Your task to perform on an android device: What's on my calendar tomorrow? Image 0: 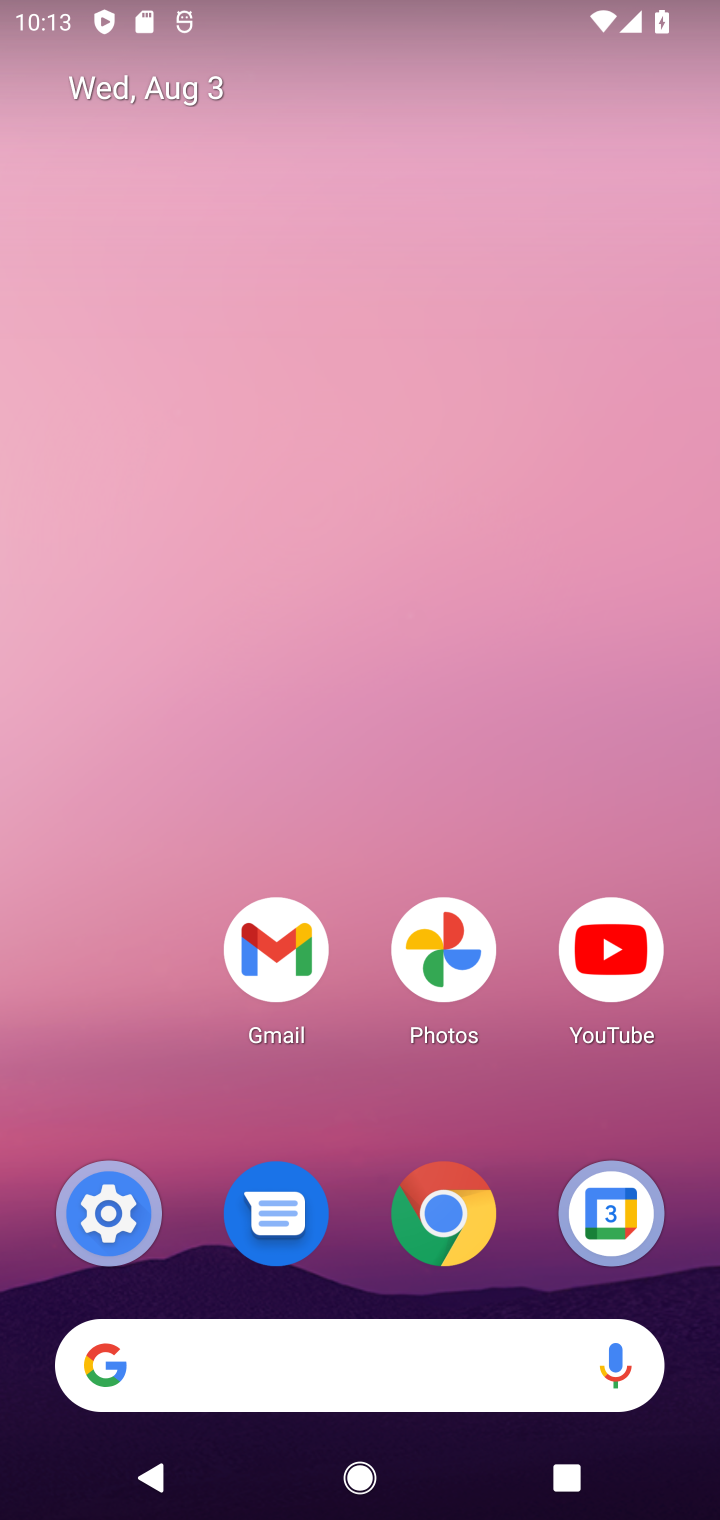
Step 0: drag from (496, 844) to (398, 36)
Your task to perform on an android device: What's on my calendar tomorrow? Image 1: 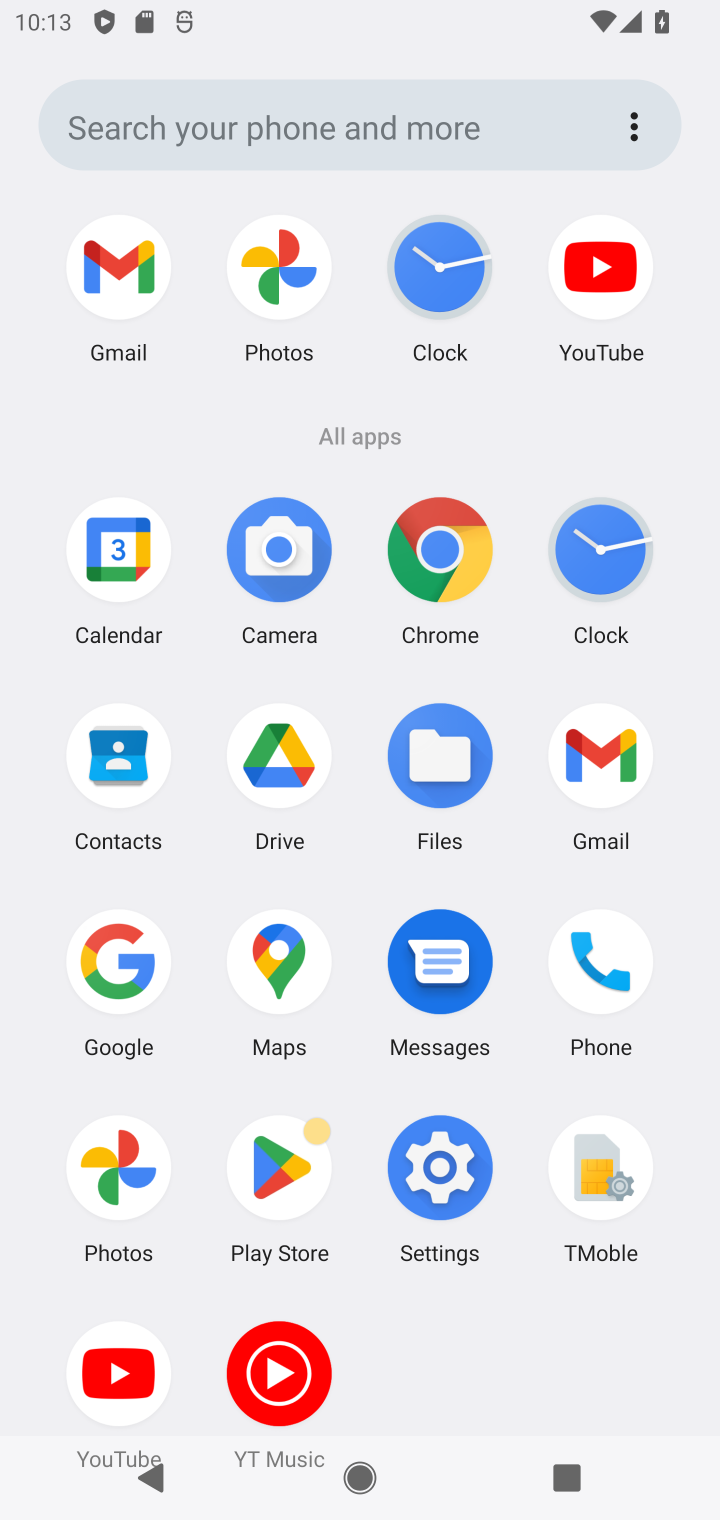
Step 1: click (90, 567)
Your task to perform on an android device: What's on my calendar tomorrow? Image 2: 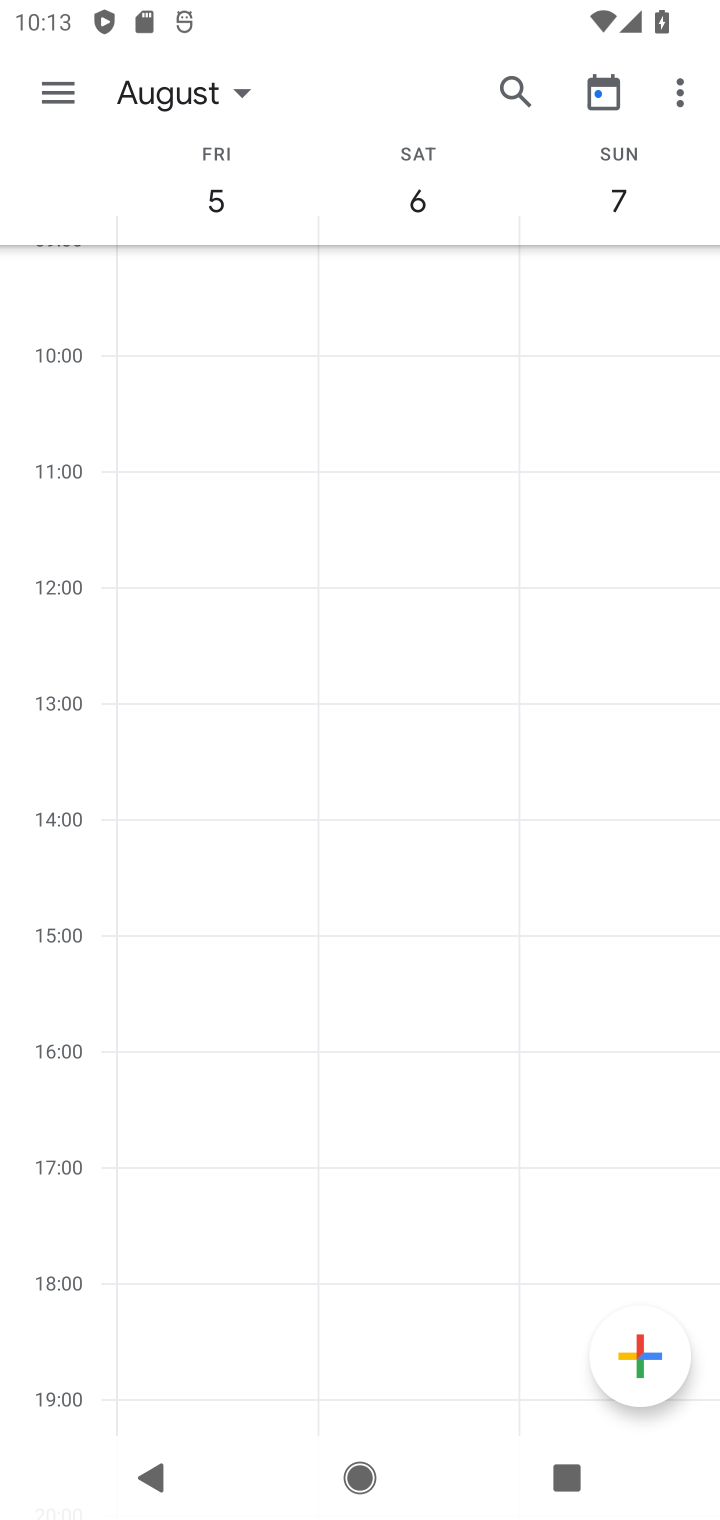
Step 2: click (62, 99)
Your task to perform on an android device: What's on my calendar tomorrow? Image 3: 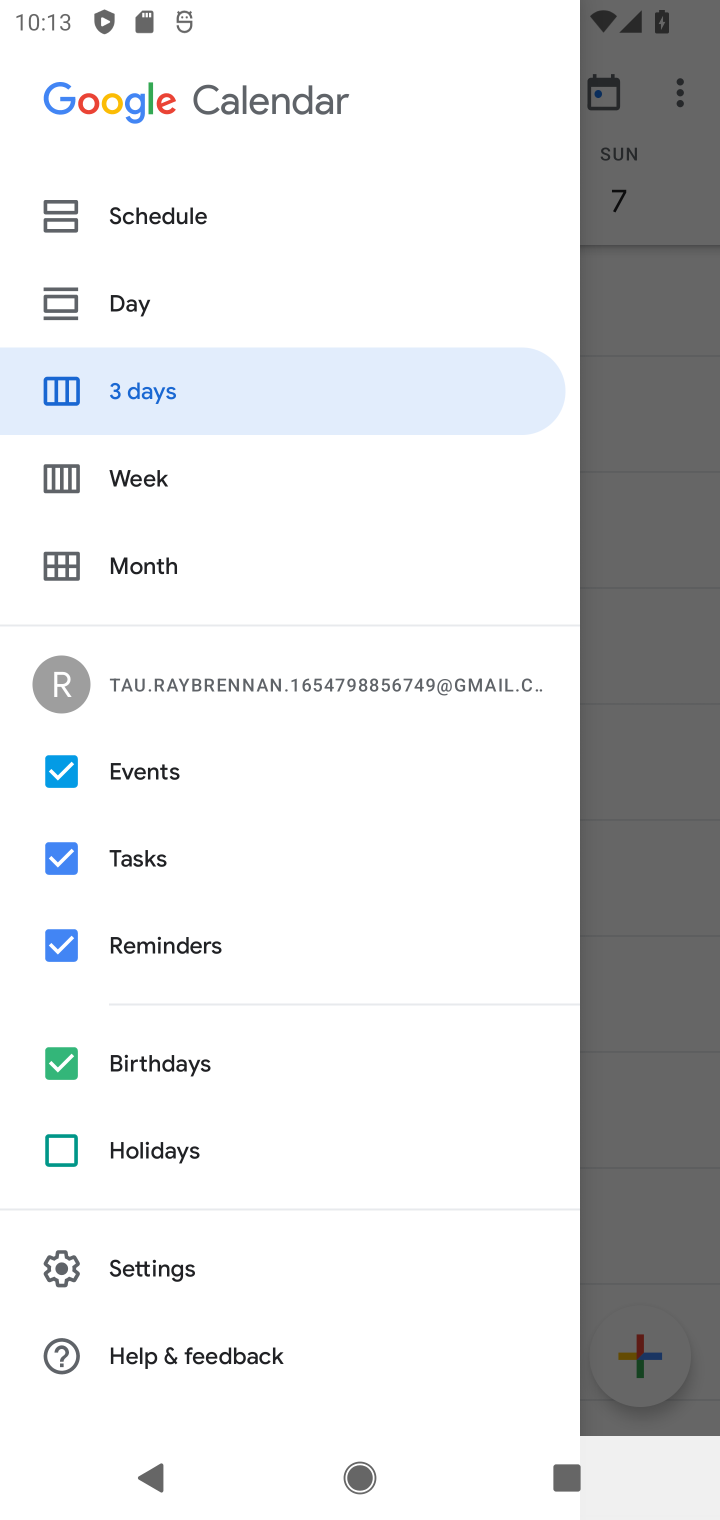
Step 3: click (178, 291)
Your task to perform on an android device: What's on my calendar tomorrow? Image 4: 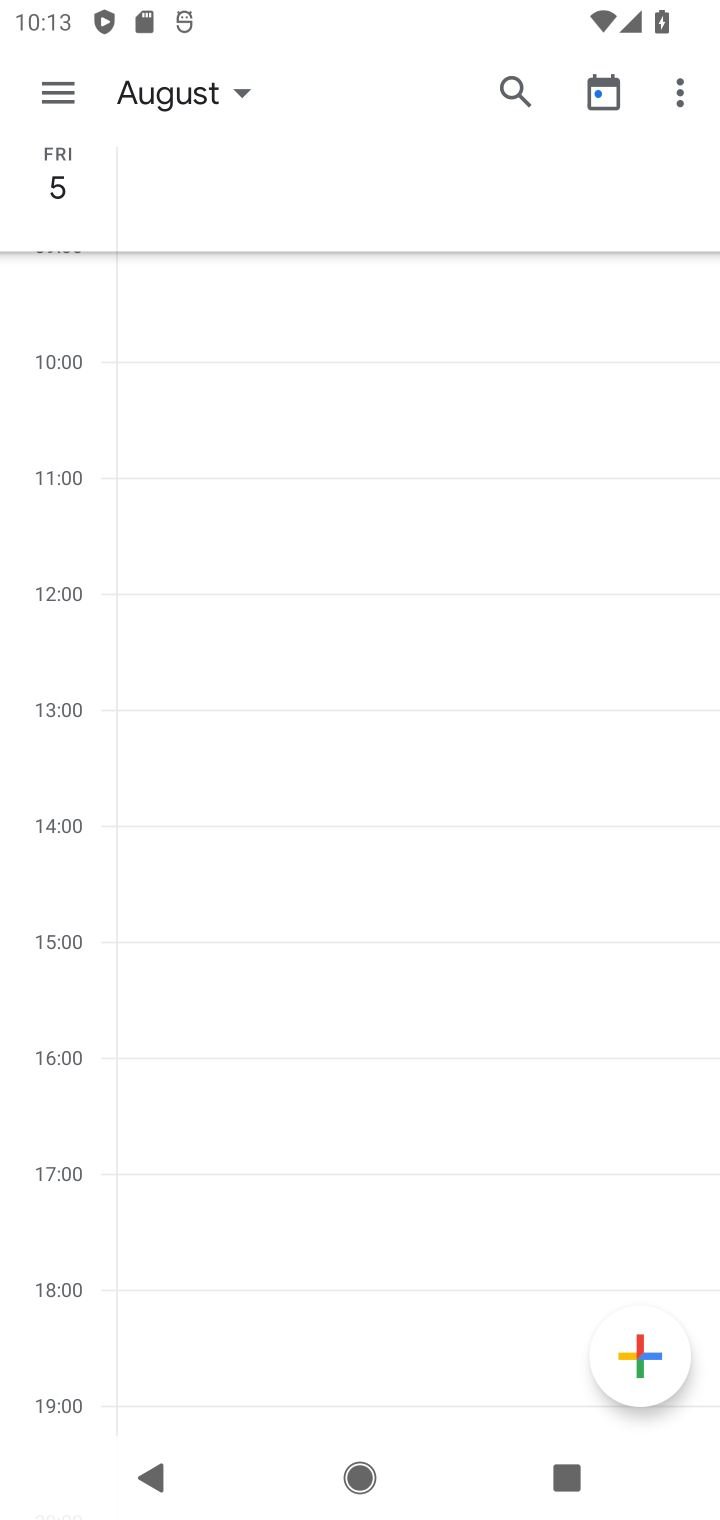
Step 4: click (222, 92)
Your task to perform on an android device: What's on my calendar tomorrow? Image 5: 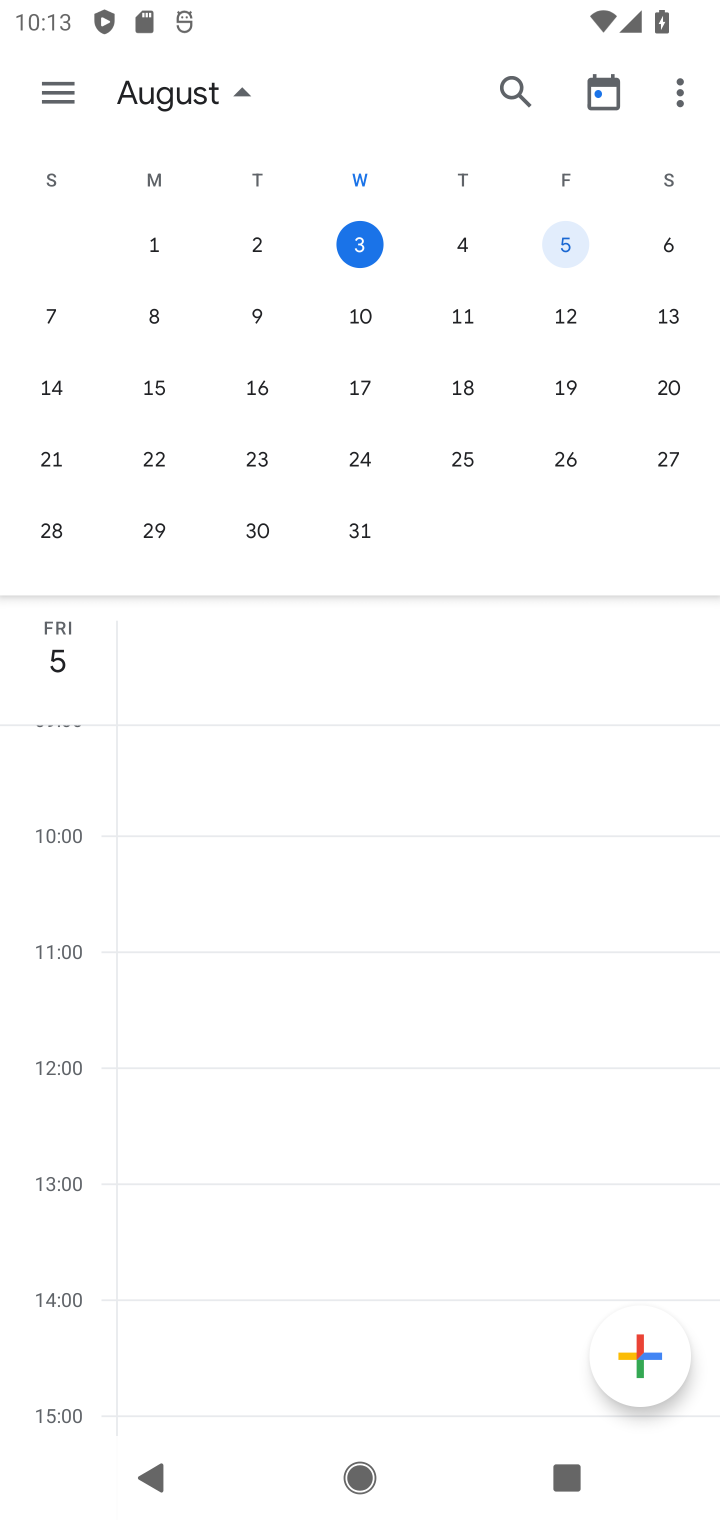
Step 5: click (457, 242)
Your task to perform on an android device: What's on my calendar tomorrow? Image 6: 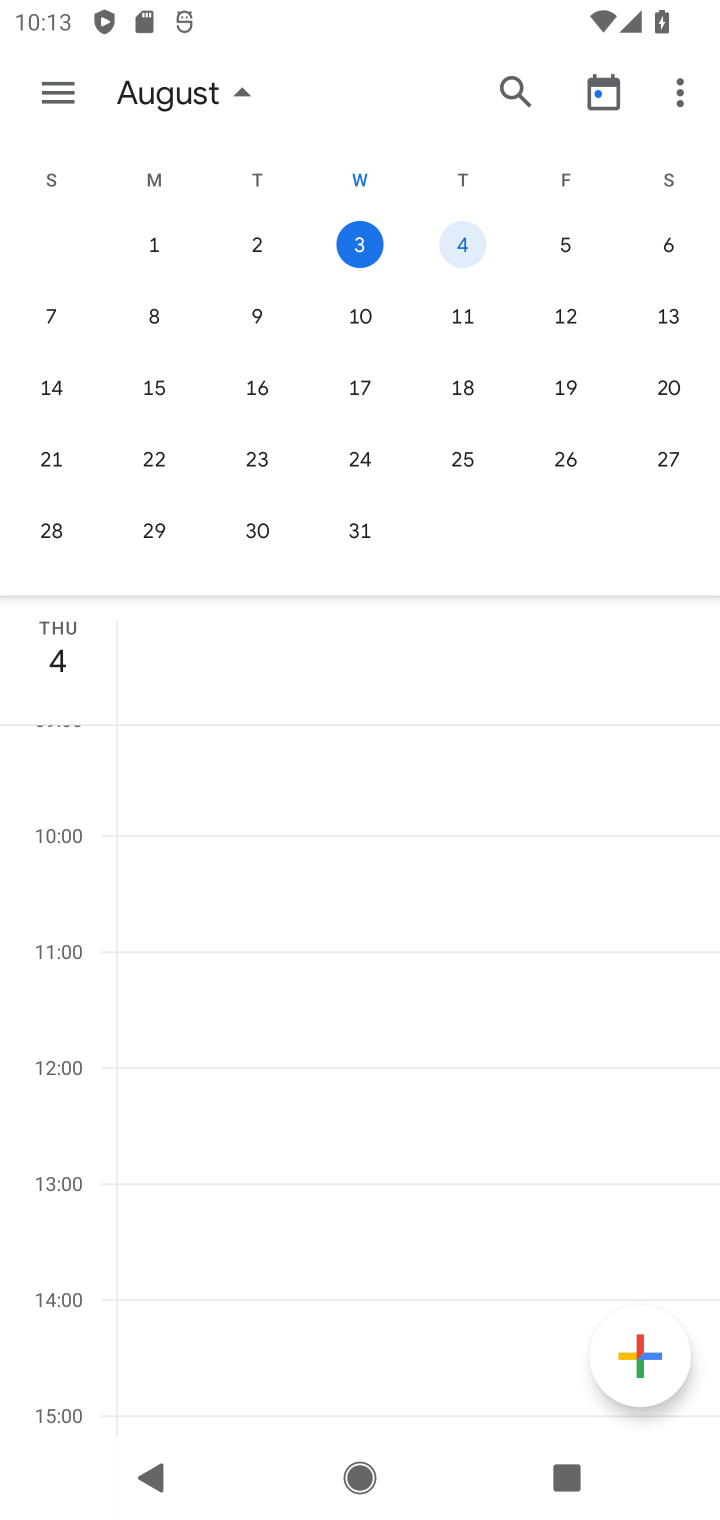
Step 6: task complete